Your task to perform on an android device: Open notification settings Image 0: 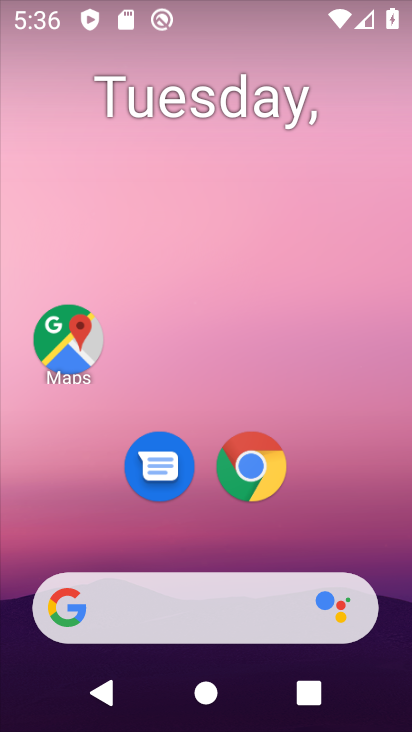
Step 0: drag from (354, 410) to (351, 168)
Your task to perform on an android device: Open notification settings Image 1: 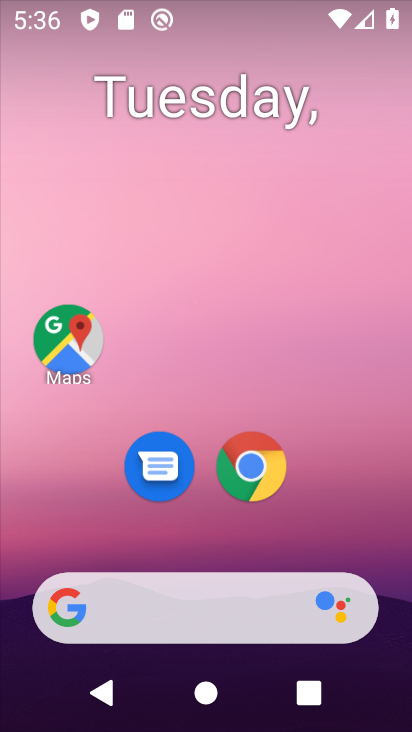
Step 1: drag from (326, 467) to (332, 31)
Your task to perform on an android device: Open notification settings Image 2: 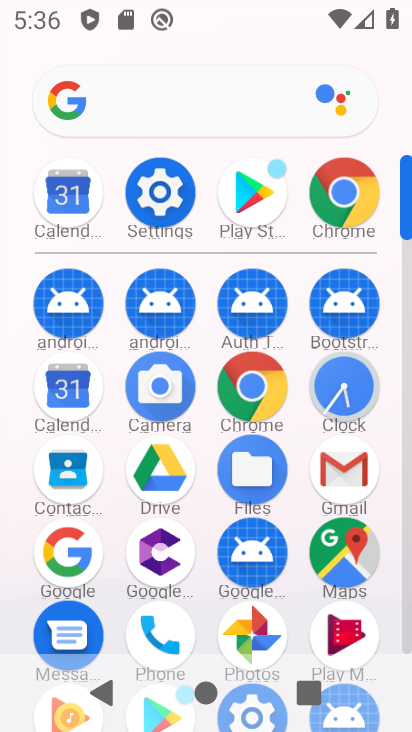
Step 2: click (183, 191)
Your task to perform on an android device: Open notification settings Image 3: 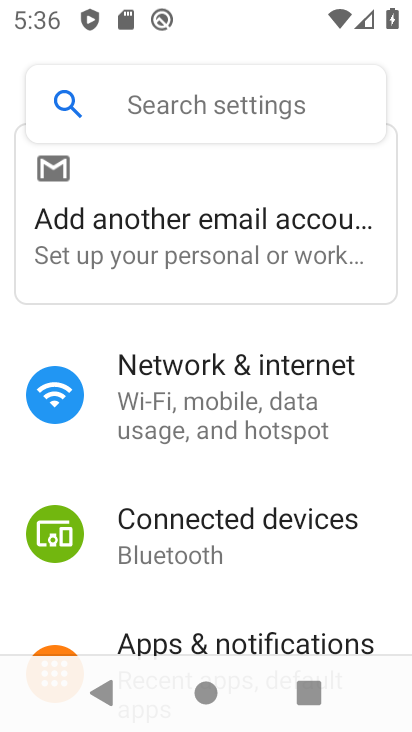
Step 3: drag from (230, 618) to (258, 447)
Your task to perform on an android device: Open notification settings Image 4: 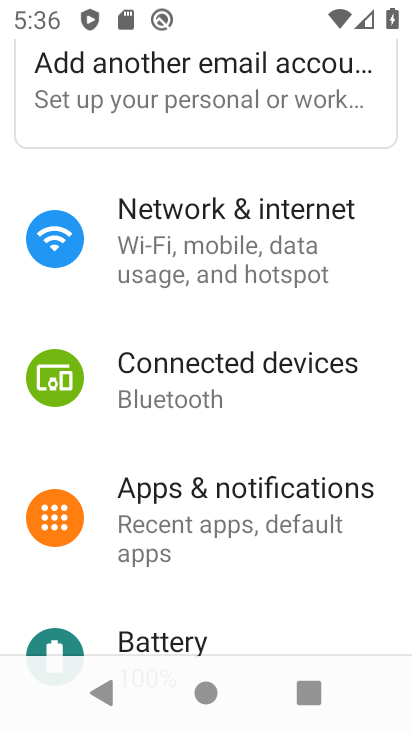
Step 4: click (216, 498)
Your task to perform on an android device: Open notification settings Image 5: 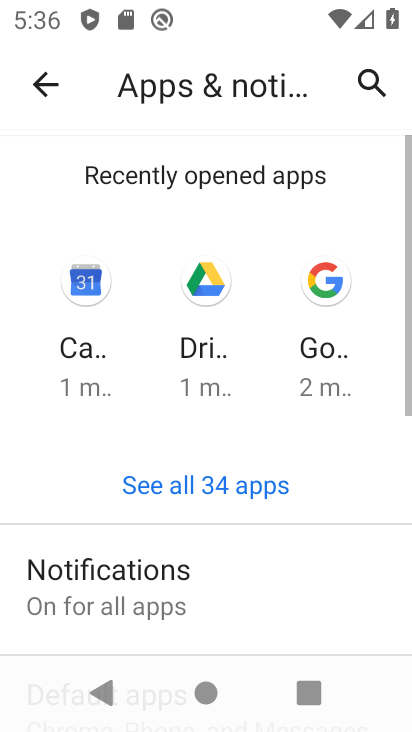
Step 5: task complete